Your task to perform on an android device: Open Youtube and go to the subscriptions tab Image 0: 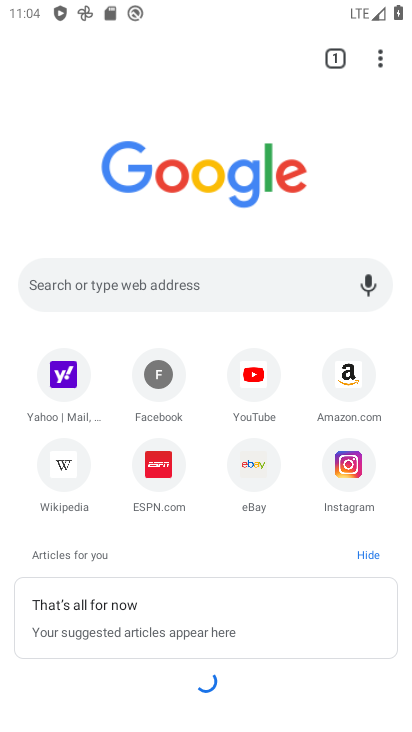
Step 0: press home button
Your task to perform on an android device: Open Youtube and go to the subscriptions tab Image 1: 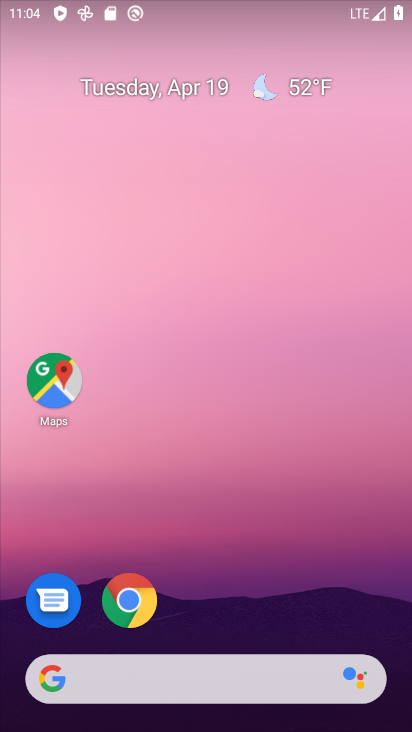
Step 1: drag from (302, 603) to (226, 152)
Your task to perform on an android device: Open Youtube and go to the subscriptions tab Image 2: 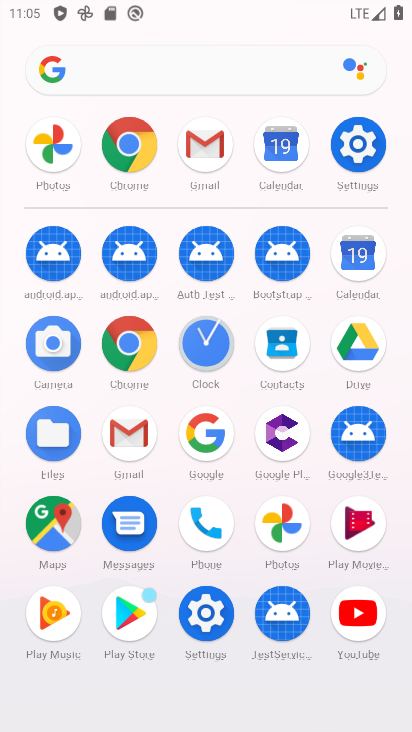
Step 2: click (352, 624)
Your task to perform on an android device: Open Youtube and go to the subscriptions tab Image 3: 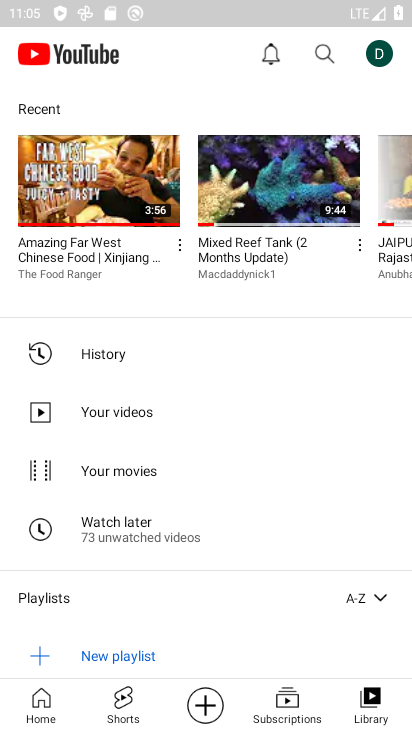
Step 3: click (377, 55)
Your task to perform on an android device: Open Youtube and go to the subscriptions tab Image 4: 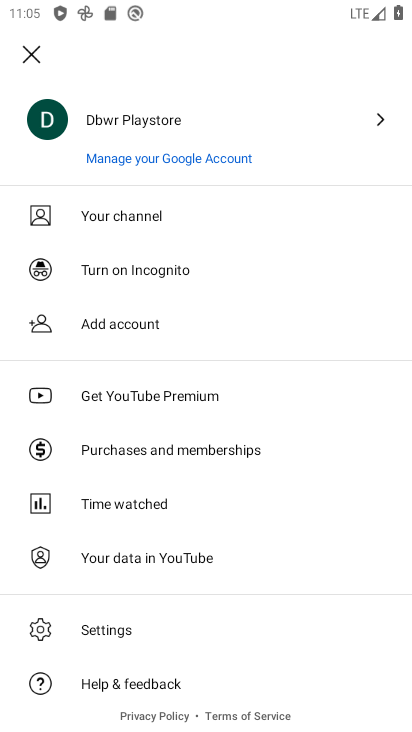
Step 4: click (225, 219)
Your task to perform on an android device: Open Youtube and go to the subscriptions tab Image 5: 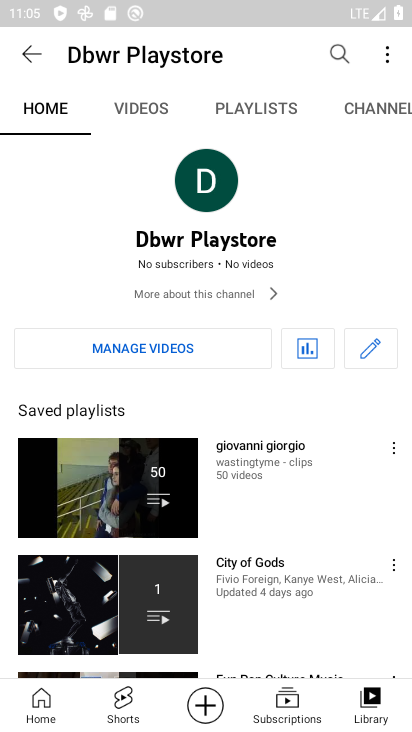
Step 5: click (364, 341)
Your task to perform on an android device: Open Youtube and go to the subscriptions tab Image 6: 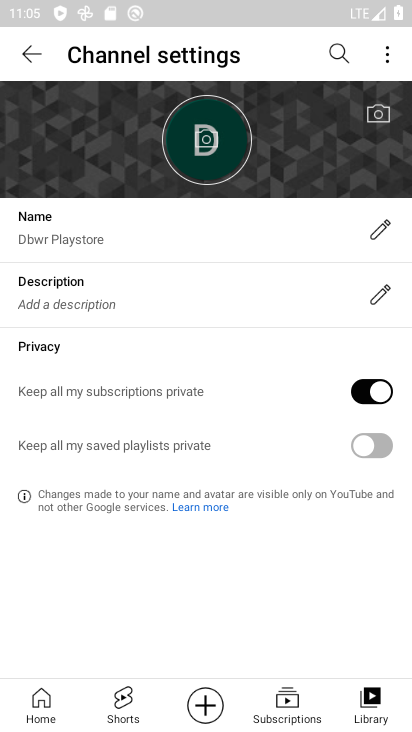
Step 6: task complete